Your task to perform on an android device: Open Reddit.com Image 0: 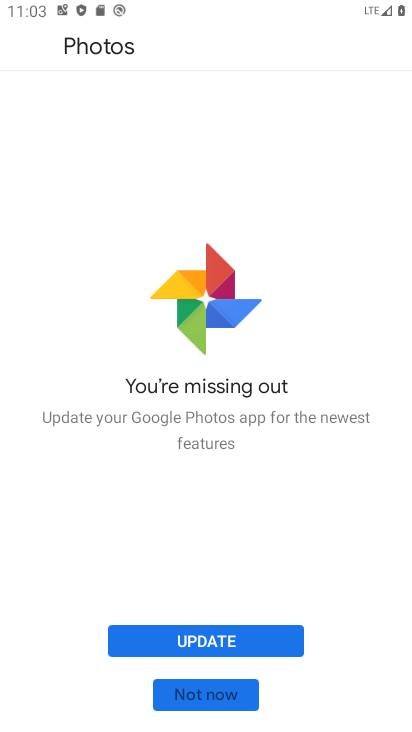
Step 0: press home button
Your task to perform on an android device: Open Reddit.com Image 1: 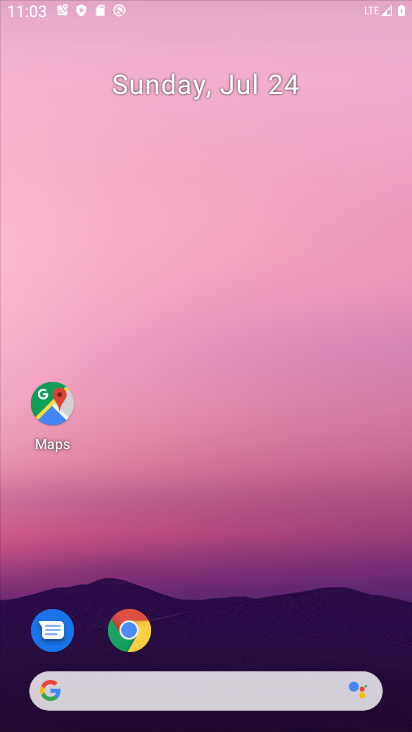
Step 1: drag from (219, 594) to (209, 83)
Your task to perform on an android device: Open Reddit.com Image 2: 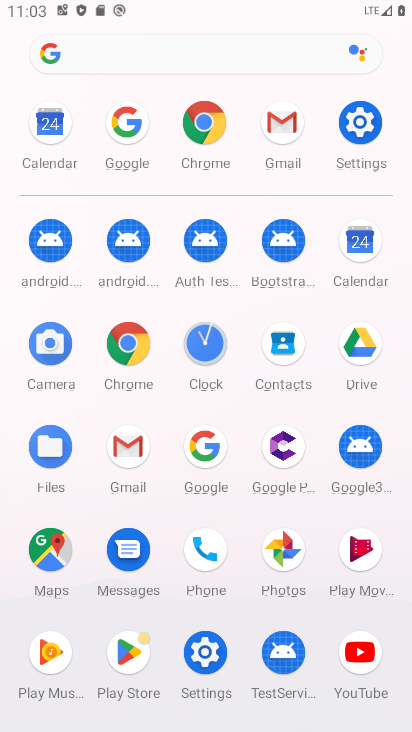
Step 2: click (200, 117)
Your task to perform on an android device: Open Reddit.com Image 3: 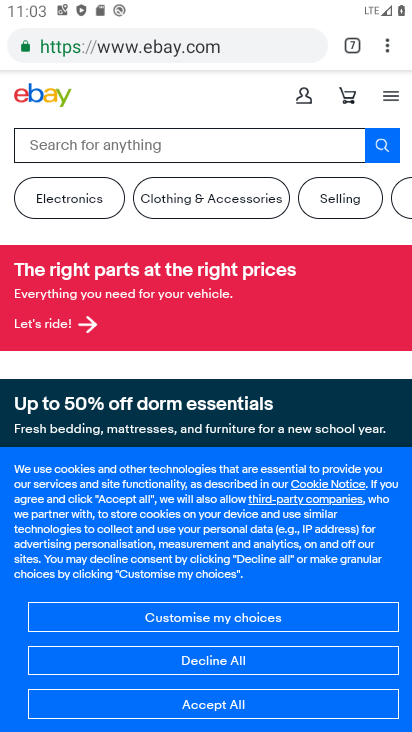
Step 3: click (355, 43)
Your task to perform on an android device: Open Reddit.com Image 4: 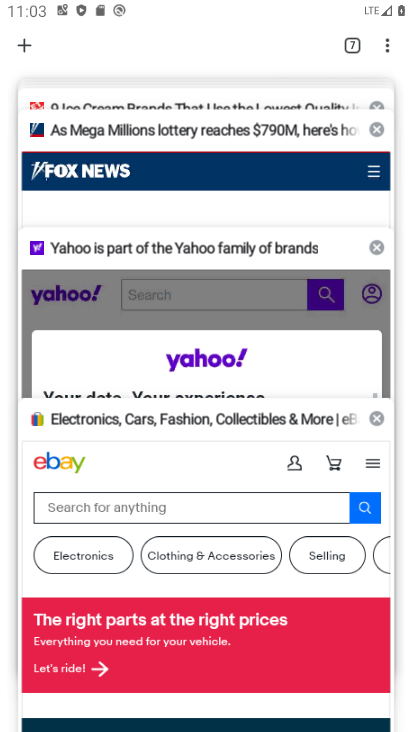
Step 4: click (29, 48)
Your task to perform on an android device: Open Reddit.com Image 5: 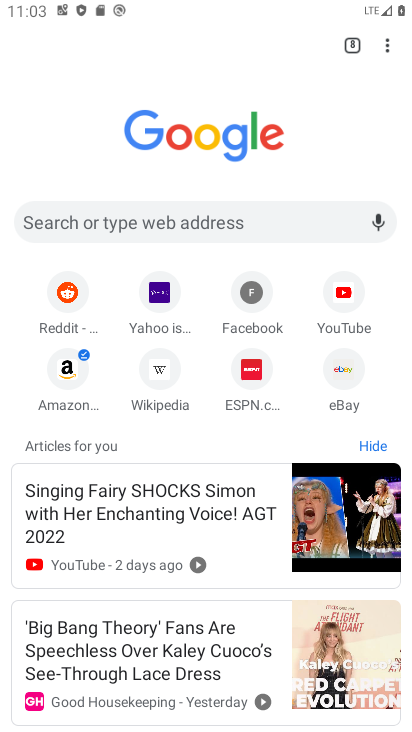
Step 5: click (116, 215)
Your task to perform on an android device: Open Reddit.com Image 6: 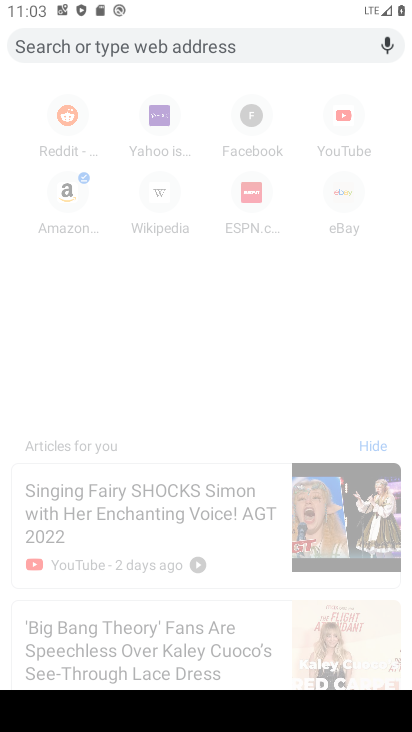
Step 6: type "Reddit.com"
Your task to perform on an android device: Open Reddit.com Image 7: 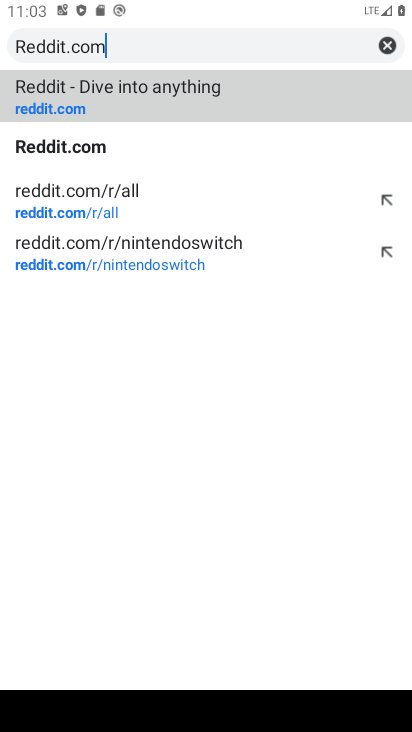
Step 7: type ""
Your task to perform on an android device: Open Reddit.com Image 8: 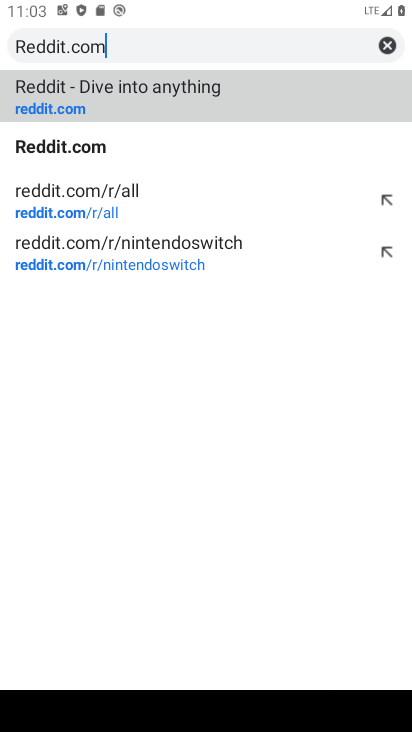
Step 8: click (260, 98)
Your task to perform on an android device: Open Reddit.com Image 9: 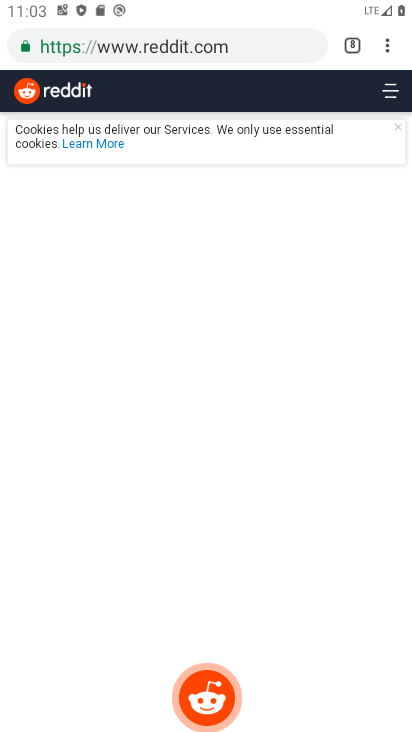
Step 9: task complete